Your task to perform on an android device: Show the shopping cart on ebay. Add razer deathadder to the cart on ebay Image 0: 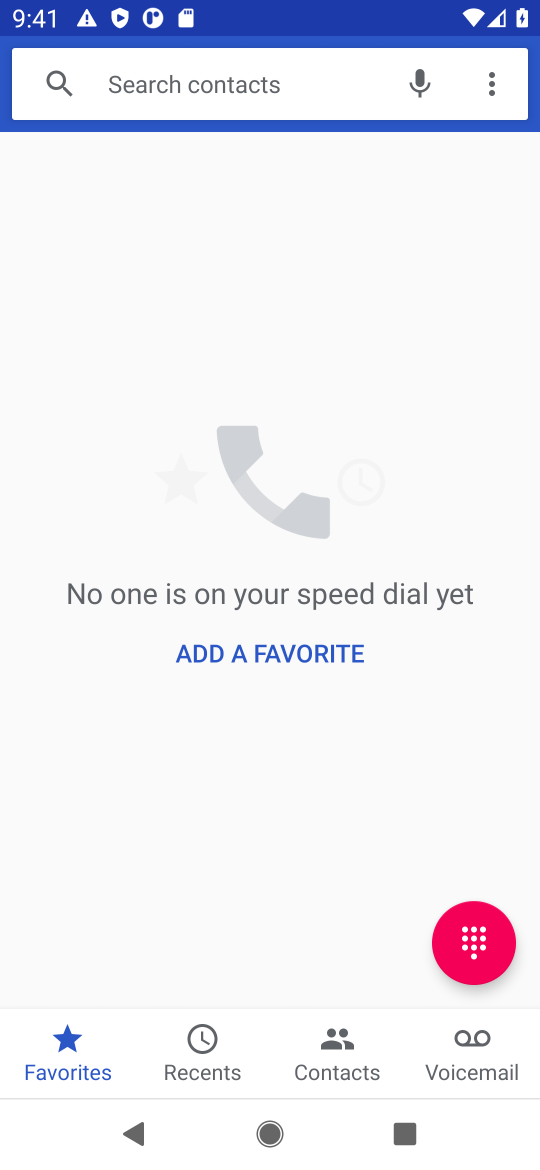
Step 0: press home button
Your task to perform on an android device: Show the shopping cart on ebay. Add razer deathadder to the cart on ebay Image 1: 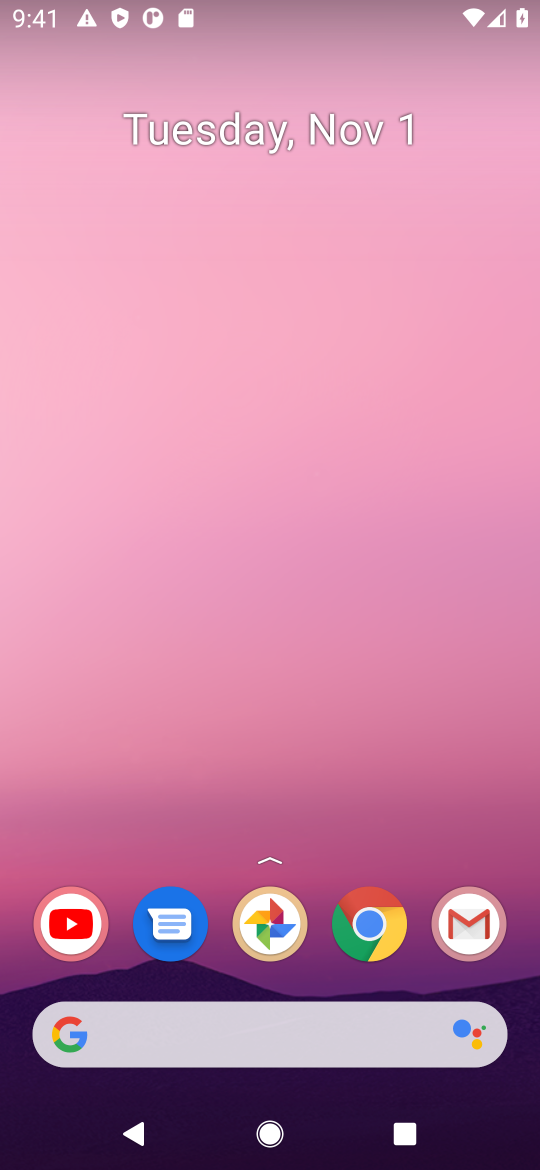
Step 1: click (379, 919)
Your task to perform on an android device: Show the shopping cart on ebay. Add razer deathadder to the cart on ebay Image 2: 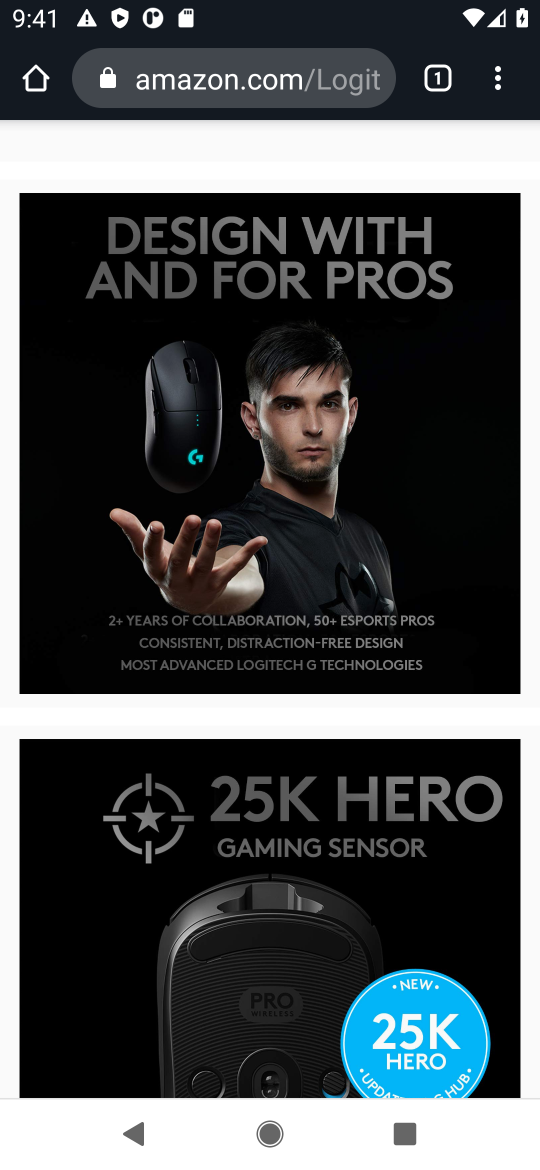
Step 2: click (267, 77)
Your task to perform on an android device: Show the shopping cart on ebay. Add razer deathadder to the cart on ebay Image 3: 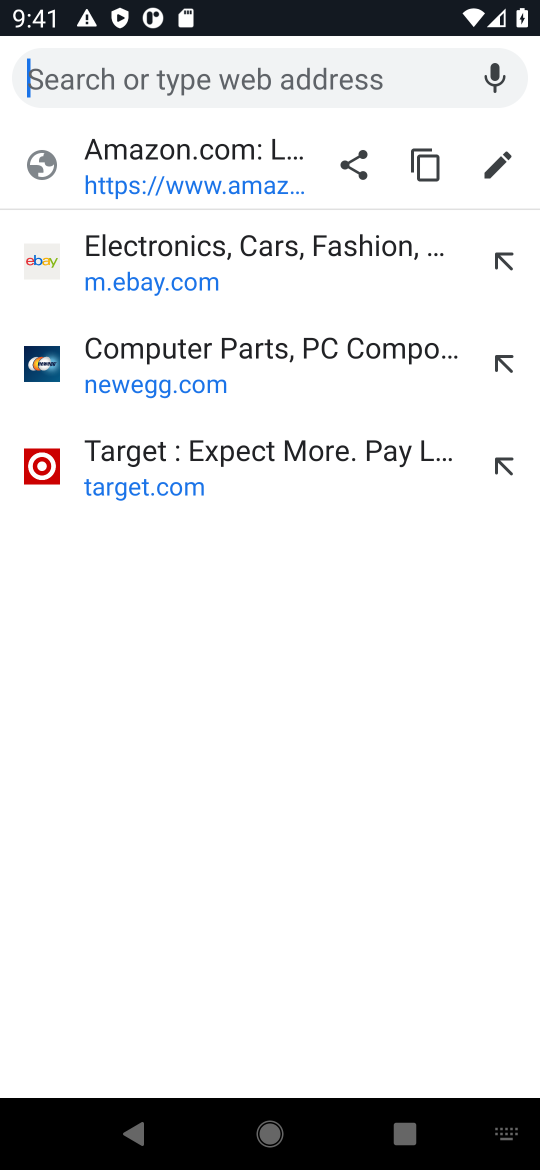
Step 3: type "ebay"
Your task to perform on an android device: Show the shopping cart on ebay. Add razer deathadder to the cart on ebay Image 4: 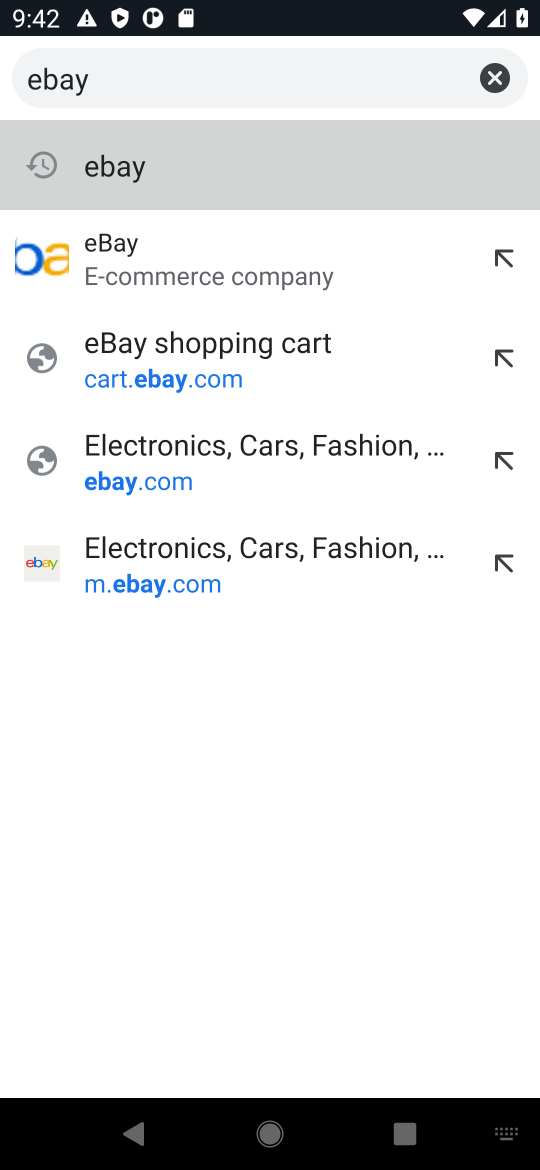
Step 4: click (184, 159)
Your task to perform on an android device: Show the shopping cart on ebay. Add razer deathadder to the cart on ebay Image 5: 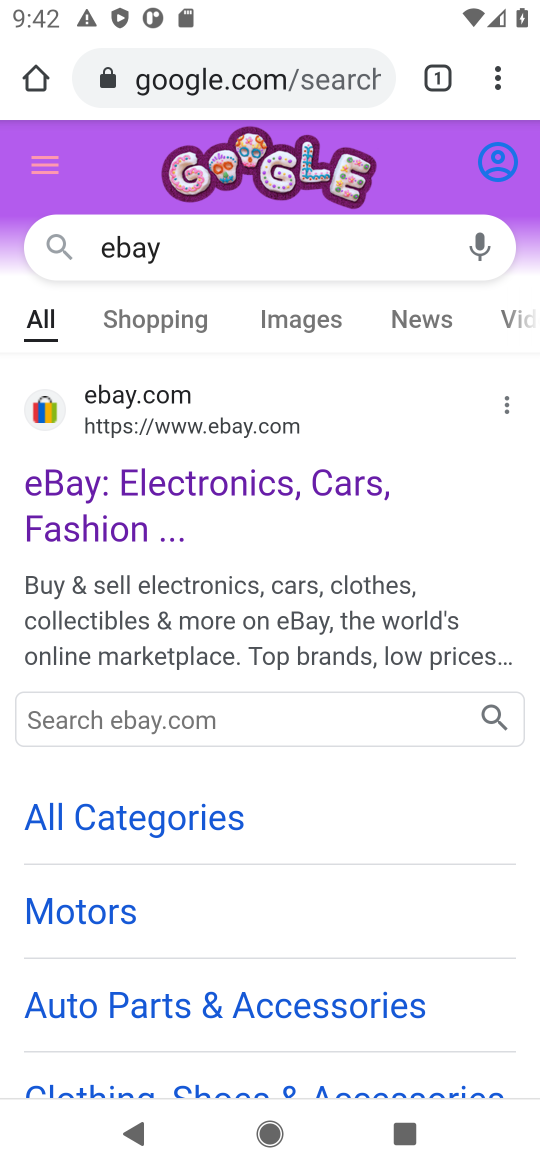
Step 5: click (97, 481)
Your task to perform on an android device: Show the shopping cart on ebay. Add razer deathadder to the cart on ebay Image 6: 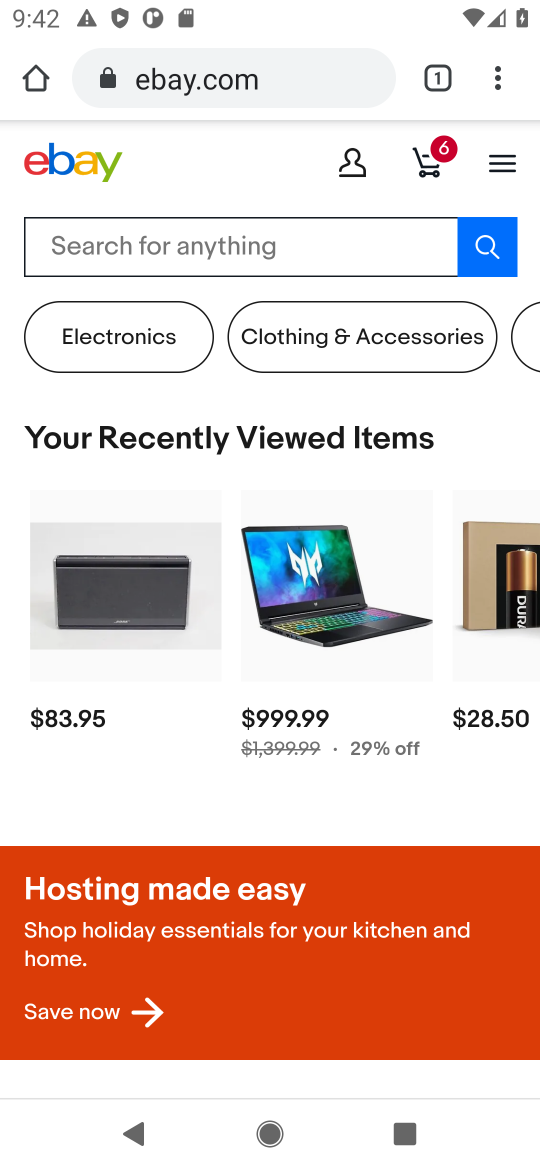
Step 6: click (434, 152)
Your task to perform on an android device: Show the shopping cart on ebay. Add razer deathadder to the cart on ebay Image 7: 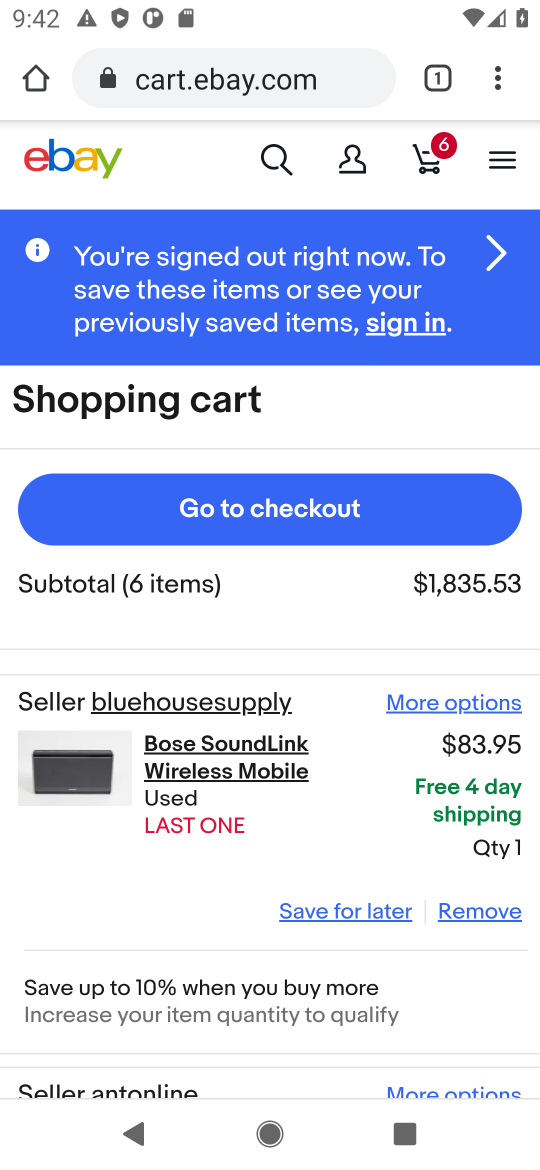
Step 7: drag from (335, 798) to (319, 441)
Your task to perform on an android device: Show the shopping cart on ebay. Add razer deathadder to the cart on ebay Image 8: 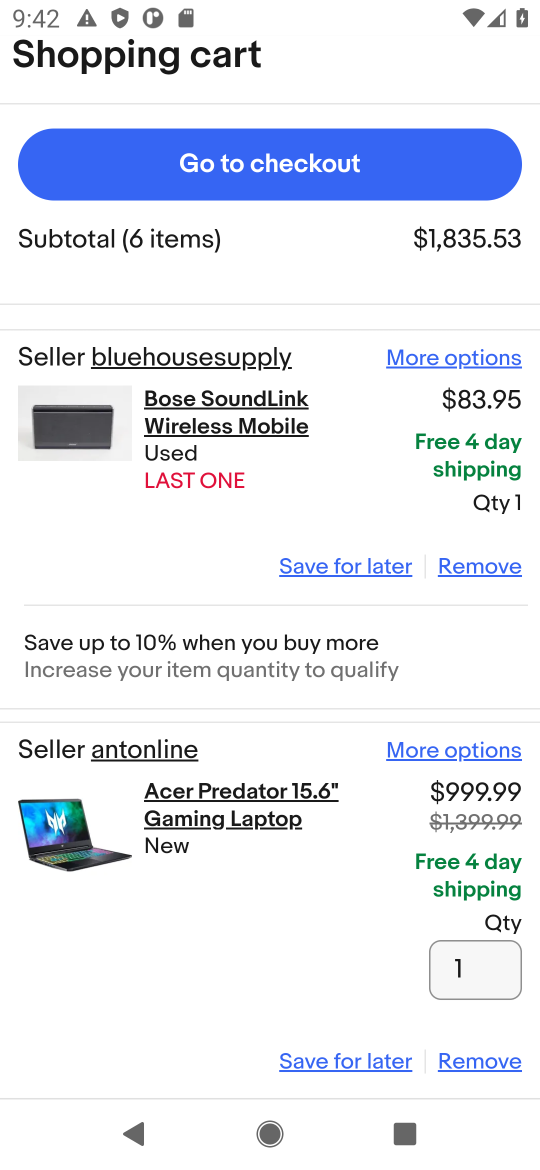
Step 8: drag from (231, 632) to (38, 842)
Your task to perform on an android device: Show the shopping cart on ebay. Add razer deathadder to the cart on ebay Image 9: 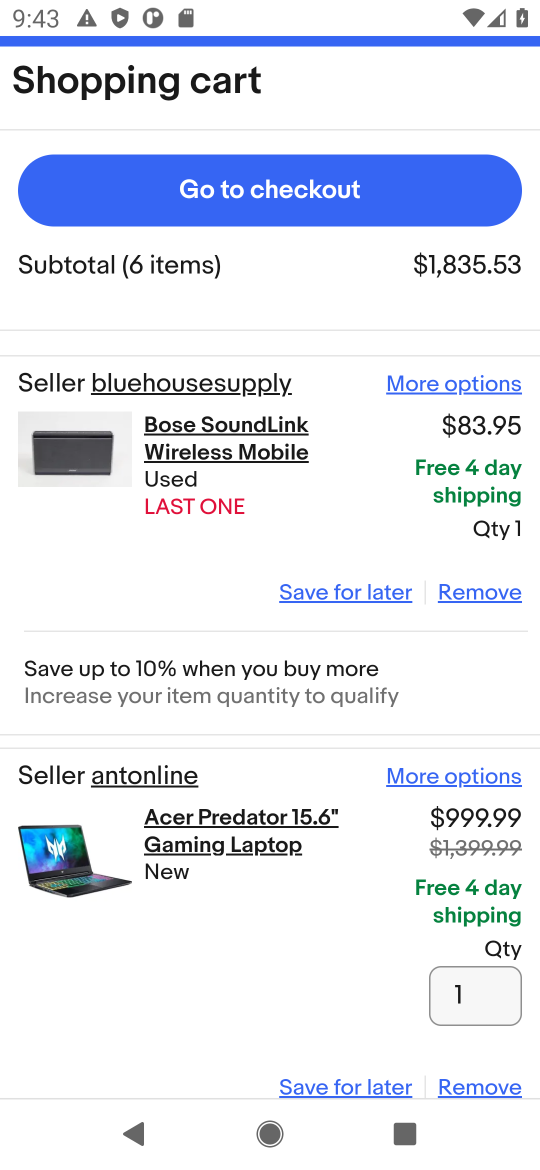
Step 9: drag from (276, 309) to (256, 724)
Your task to perform on an android device: Show the shopping cart on ebay. Add razer deathadder to the cart on ebay Image 10: 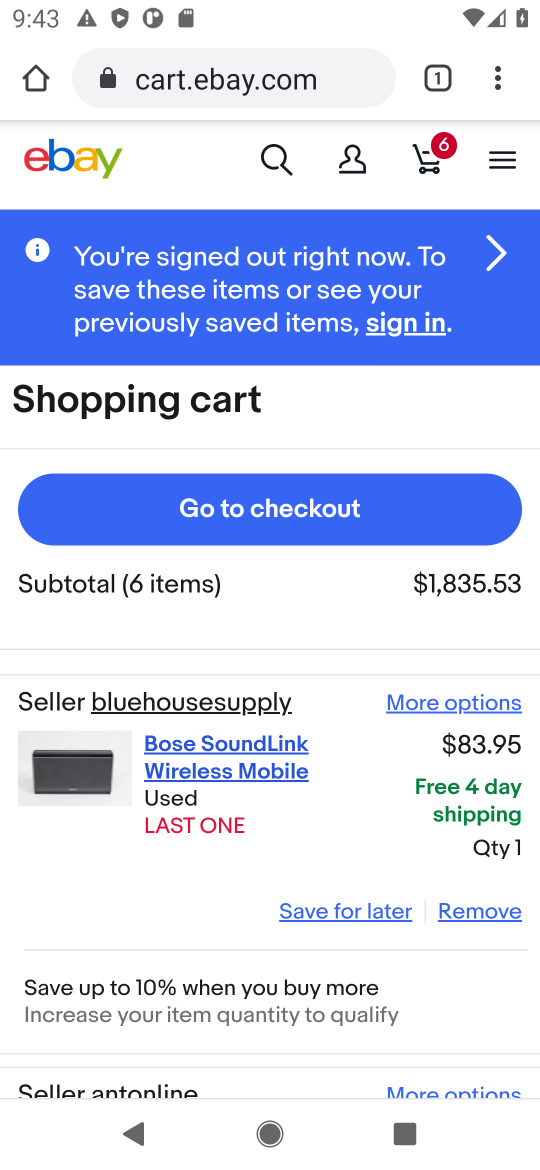
Step 10: click (268, 159)
Your task to perform on an android device: Show the shopping cart on ebay. Add razer deathadder to the cart on ebay Image 11: 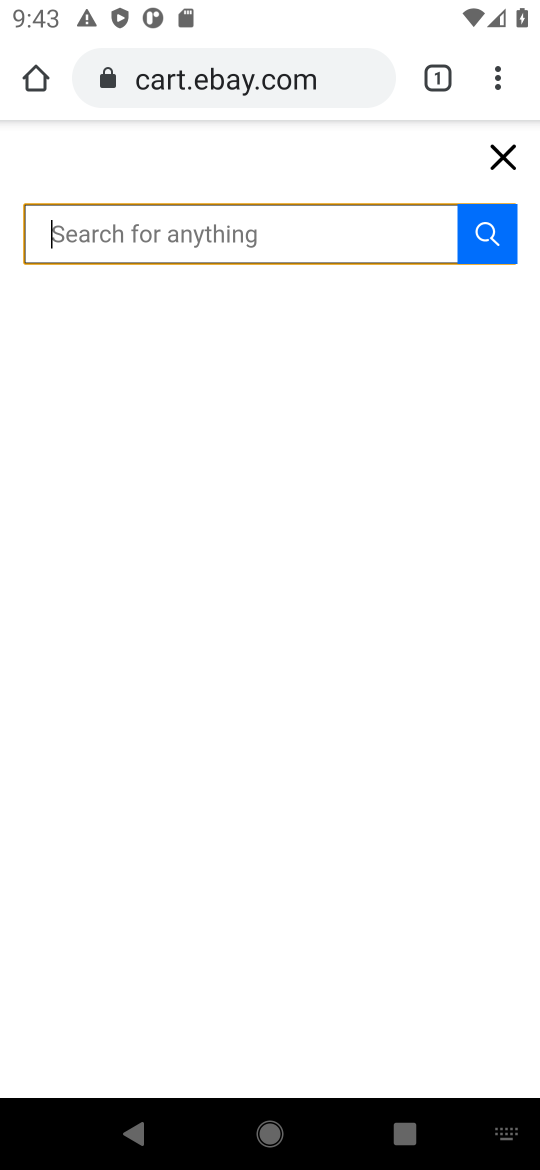
Step 11: type "razer deathadder"
Your task to perform on an android device: Show the shopping cart on ebay. Add razer deathadder to the cart on ebay Image 12: 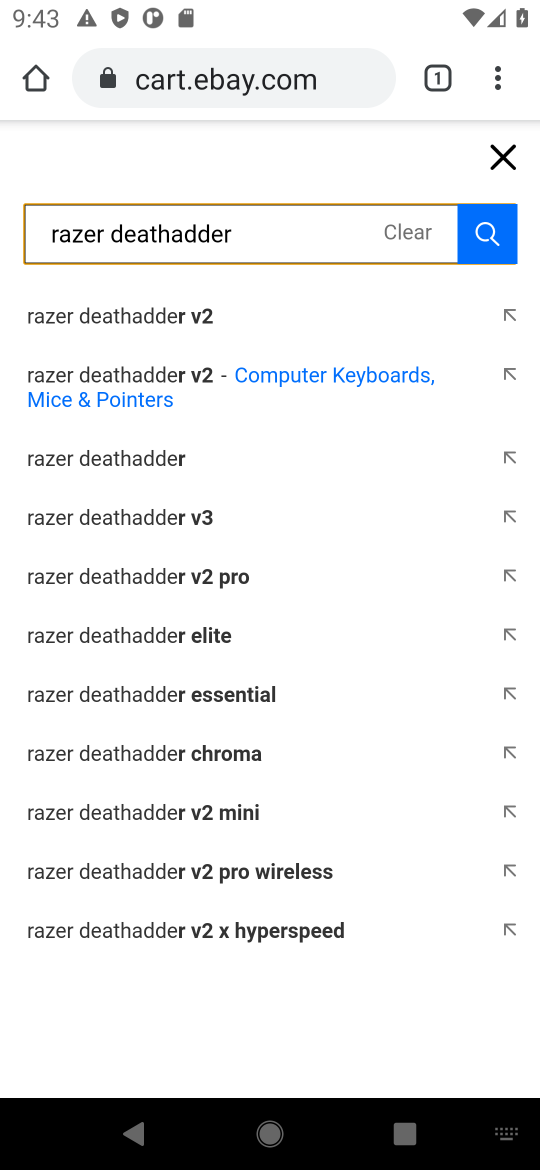
Step 12: click (485, 226)
Your task to perform on an android device: Show the shopping cart on ebay. Add razer deathadder to the cart on ebay Image 13: 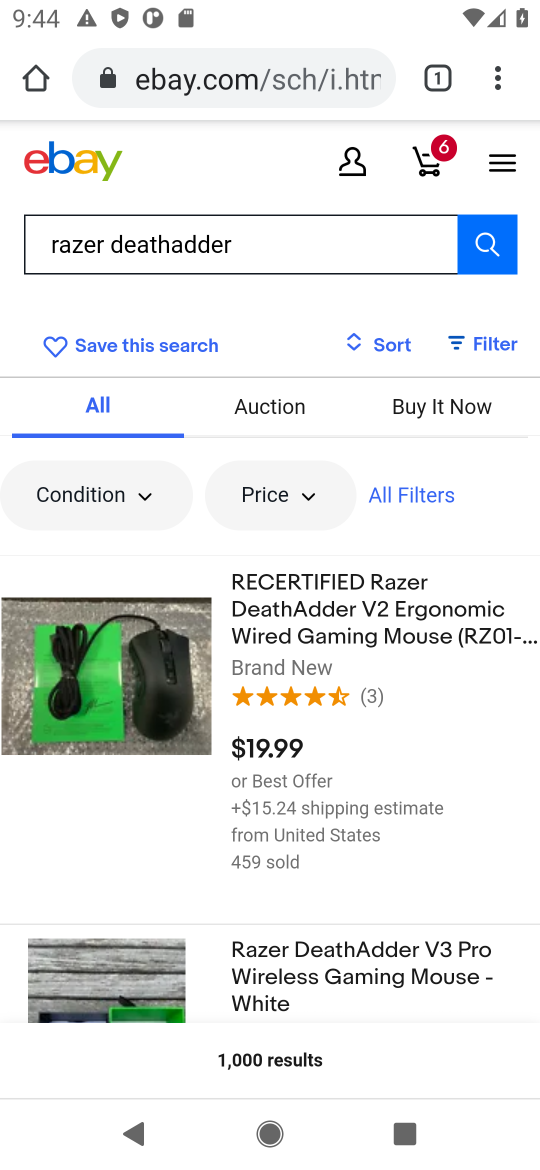
Step 13: click (296, 625)
Your task to perform on an android device: Show the shopping cart on ebay. Add razer deathadder to the cart on ebay Image 14: 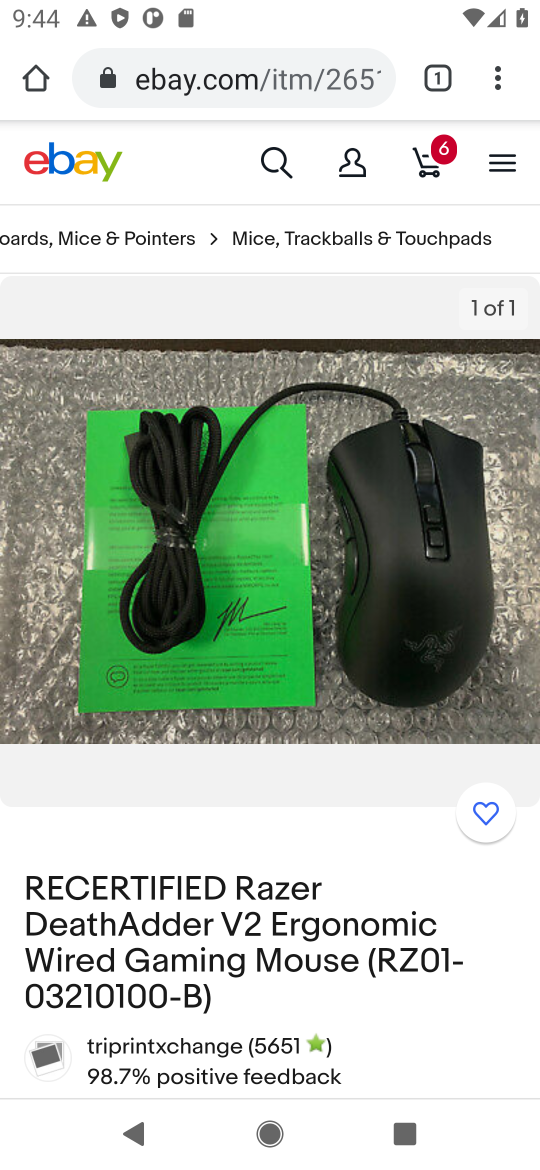
Step 14: drag from (401, 899) to (381, 177)
Your task to perform on an android device: Show the shopping cart on ebay. Add razer deathadder to the cart on ebay Image 15: 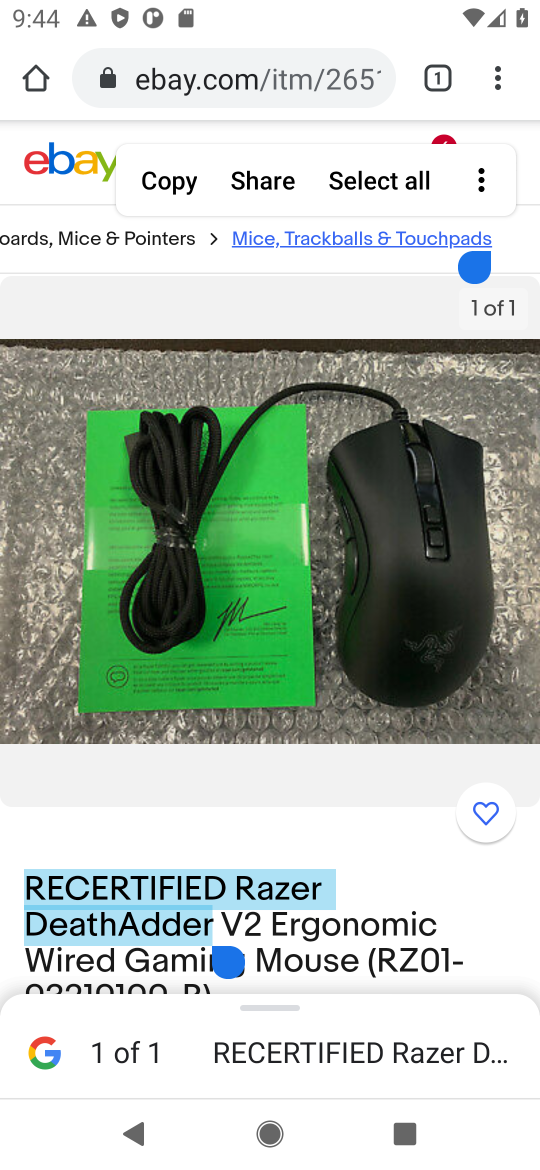
Step 15: click (397, 935)
Your task to perform on an android device: Show the shopping cart on ebay. Add razer deathadder to the cart on ebay Image 16: 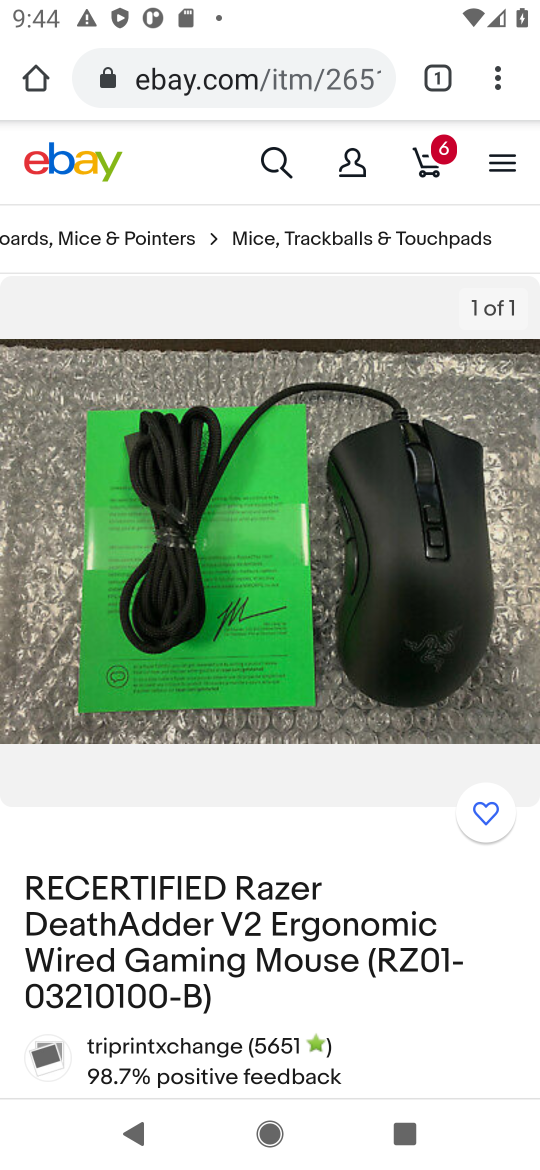
Step 16: drag from (314, 944) to (243, 168)
Your task to perform on an android device: Show the shopping cart on ebay. Add razer deathadder to the cart on ebay Image 17: 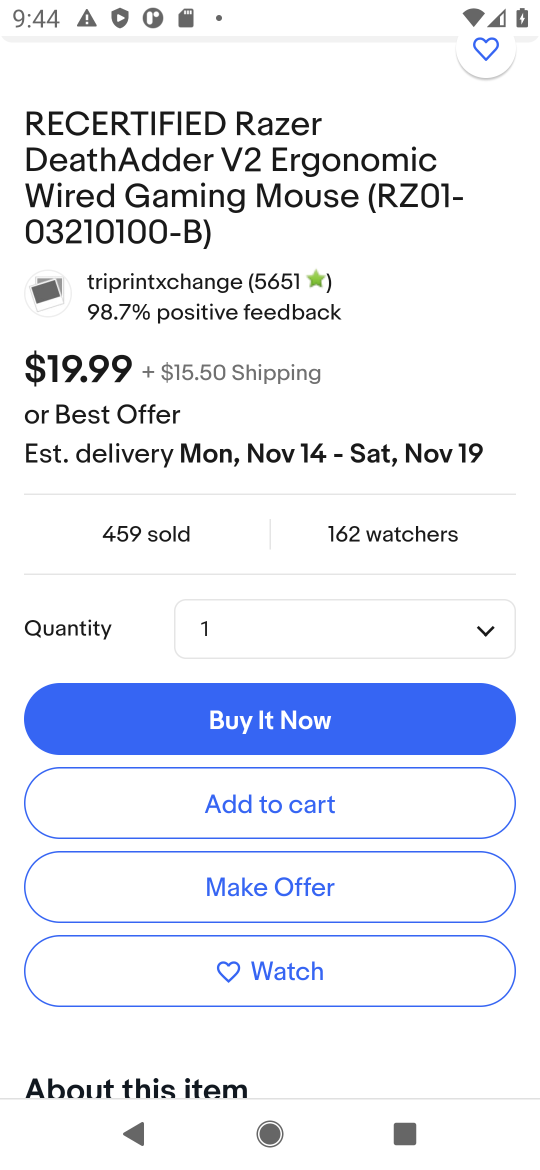
Step 17: click (272, 805)
Your task to perform on an android device: Show the shopping cart on ebay. Add razer deathadder to the cart on ebay Image 18: 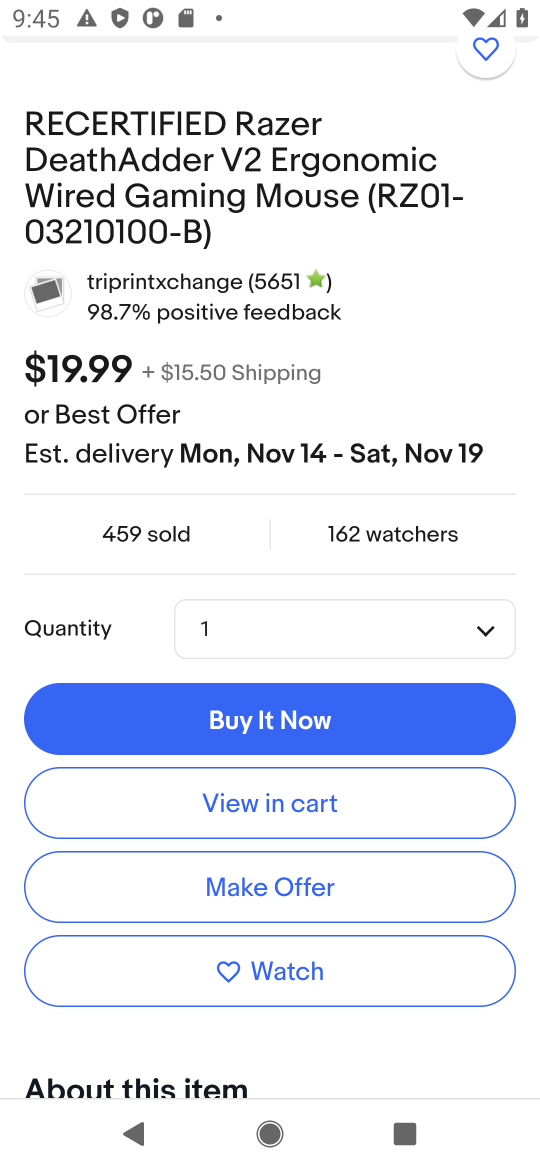
Step 18: task complete